Your task to perform on an android device: What's the weather going to be this weekend? Image 0: 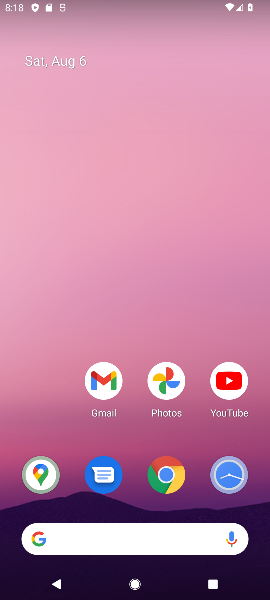
Step 0: drag from (130, 448) to (135, 28)
Your task to perform on an android device: What's the weather going to be this weekend? Image 1: 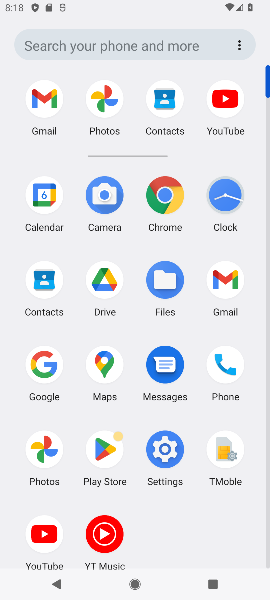
Step 1: click (58, 373)
Your task to perform on an android device: What's the weather going to be this weekend? Image 2: 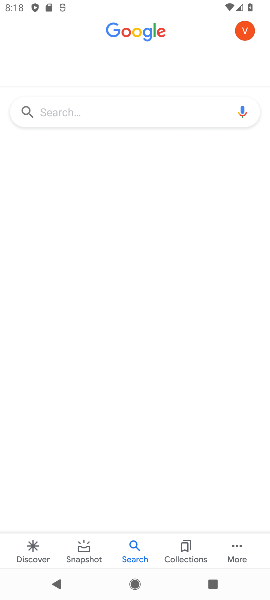
Step 2: click (149, 119)
Your task to perform on an android device: What's the weather going to be this weekend? Image 3: 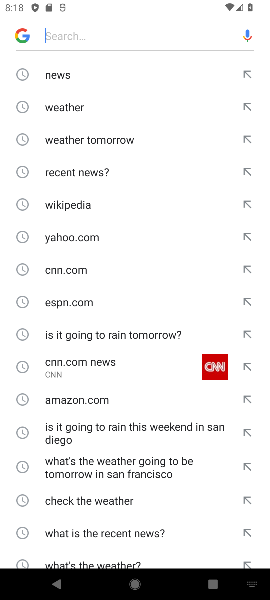
Step 3: click (119, 109)
Your task to perform on an android device: What's the weather going to be this weekend? Image 4: 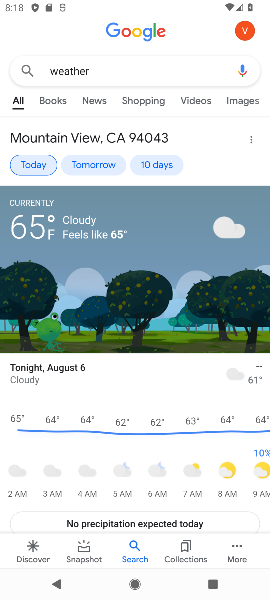
Step 4: click (146, 167)
Your task to perform on an android device: What's the weather going to be this weekend? Image 5: 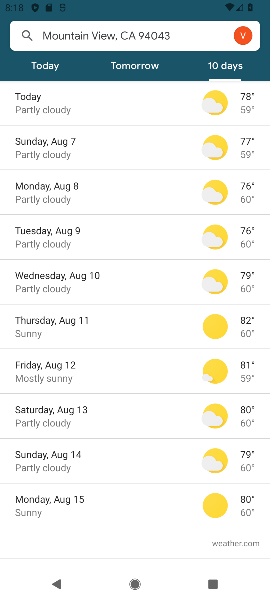
Step 5: task complete